Your task to perform on an android device: toggle wifi Image 0: 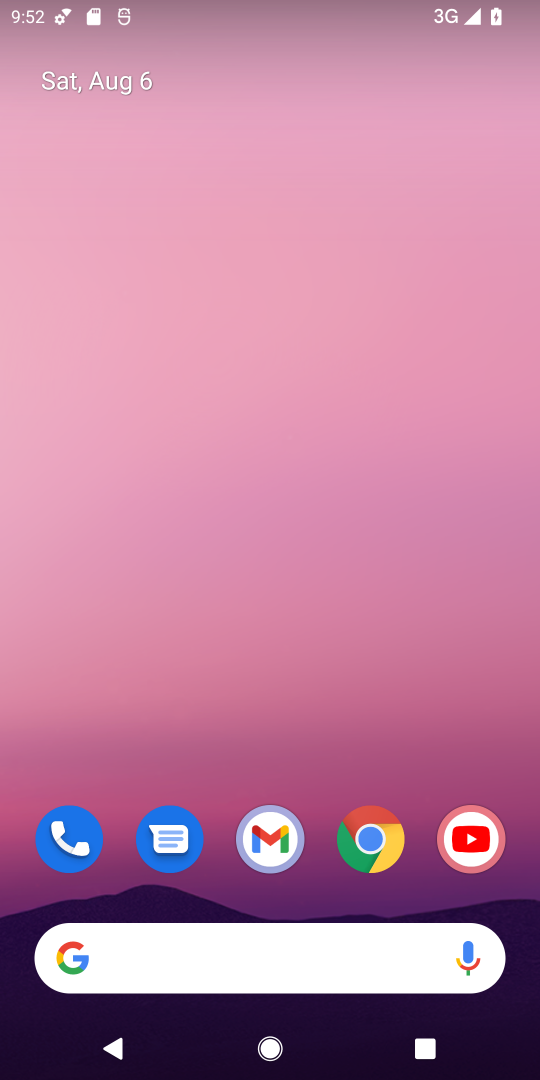
Step 0: drag from (324, 875) to (387, 134)
Your task to perform on an android device: toggle wifi Image 1: 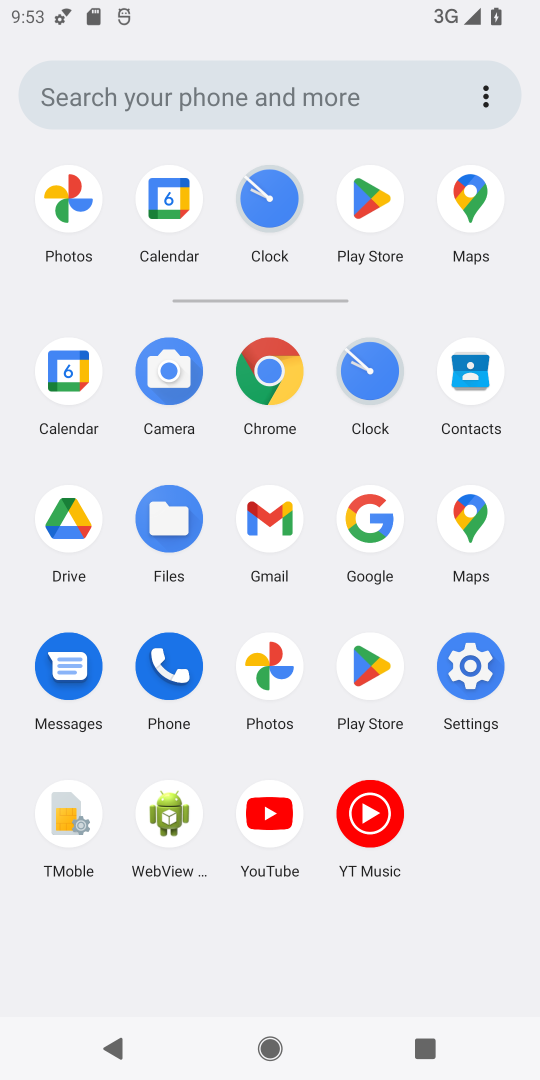
Step 1: click (457, 666)
Your task to perform on an android device: toggle wifi Image 2: 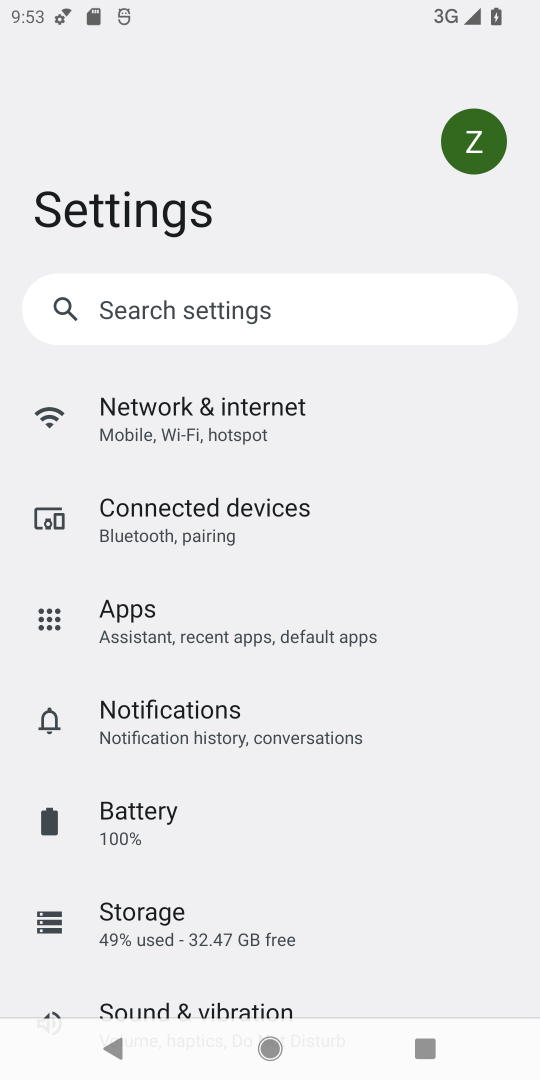
Step 2: click (250, 419)
Your task to perform on an android device: toggle wifi Image 3: 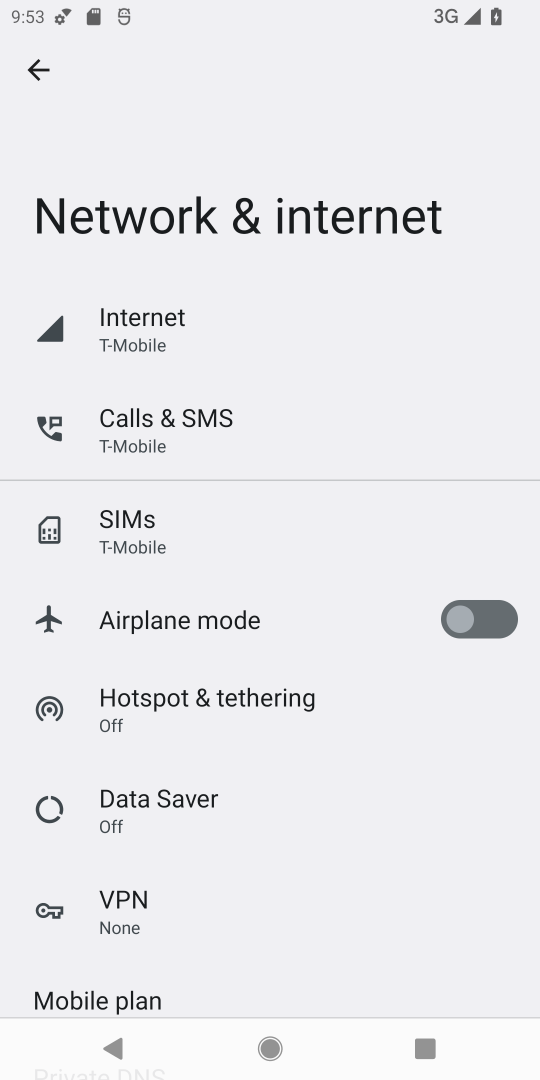
Step 3: click (251, 340)
Your task to perform on an android device: toggle wifi Image 4: 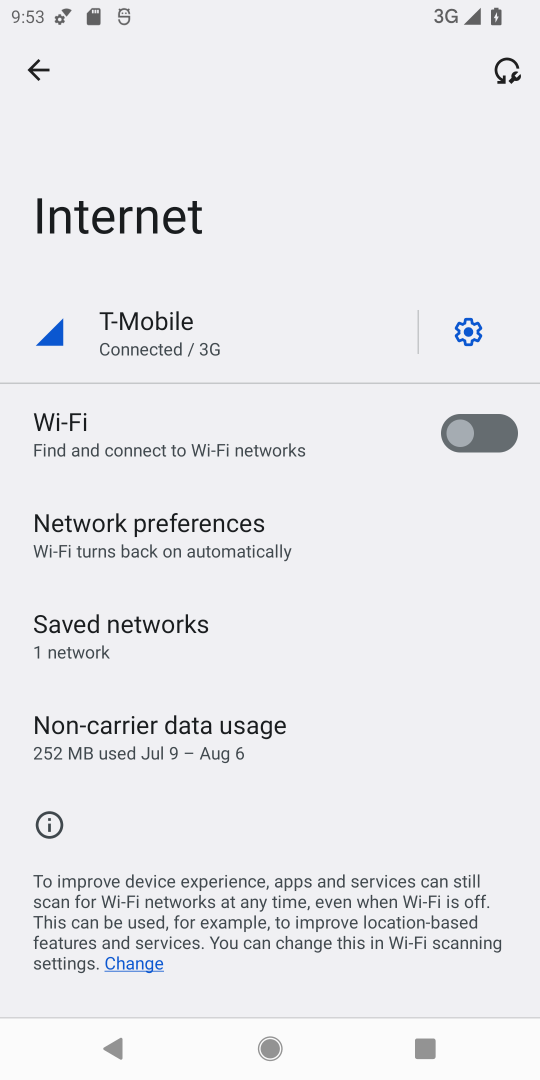
Step 4: task complete